Your task to perform on an android device: open chrome and create a bookmark for the current page Image 0: 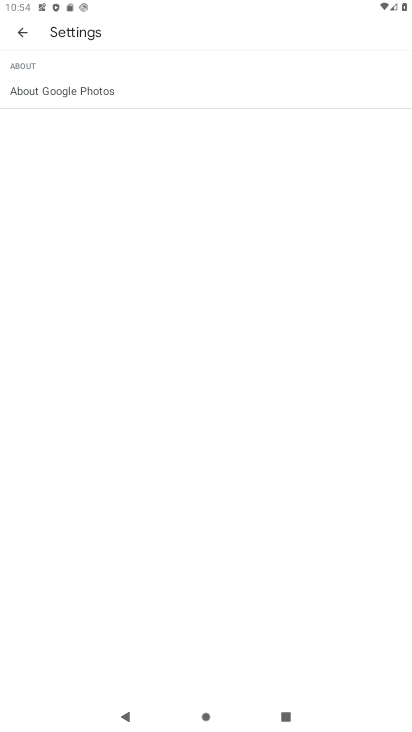
Step 0: press home button
Your task to perform on an android device: open chrome and create a bookmark for the current page Image 1: 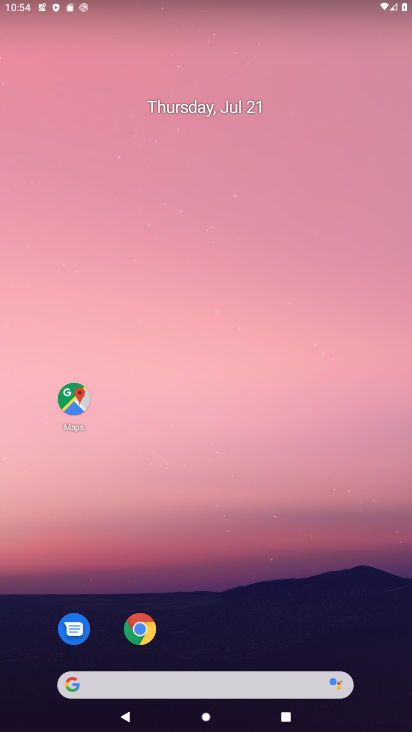
Step 1: click (140, 627)
Your task to perform on an android device: open chrome and create a bookmark for the current page Image 2: 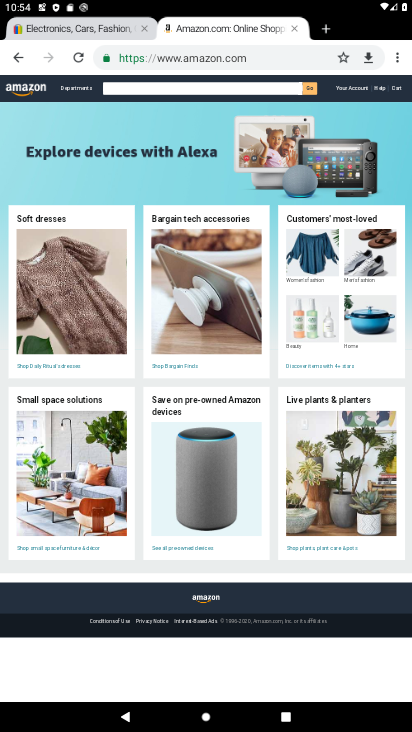
Step 2: click (402, 63)
Your task to perform on an android device: open chrome and create a bookmark for the current page Image 3: 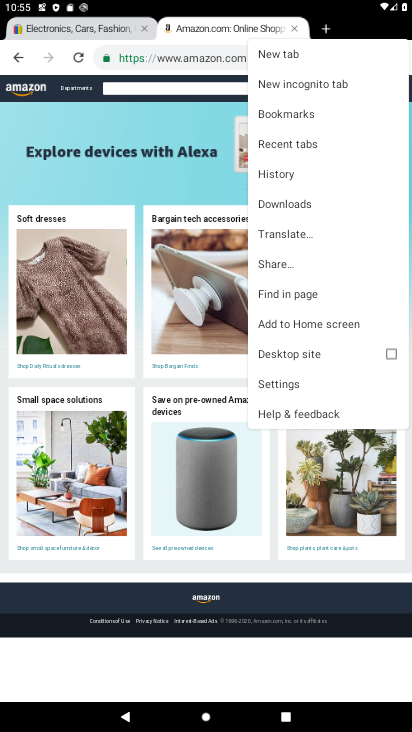
Step 3: click (315, 115)
Your task to perform on an android device: open chrome and create a bookmark for the current page Image 4: 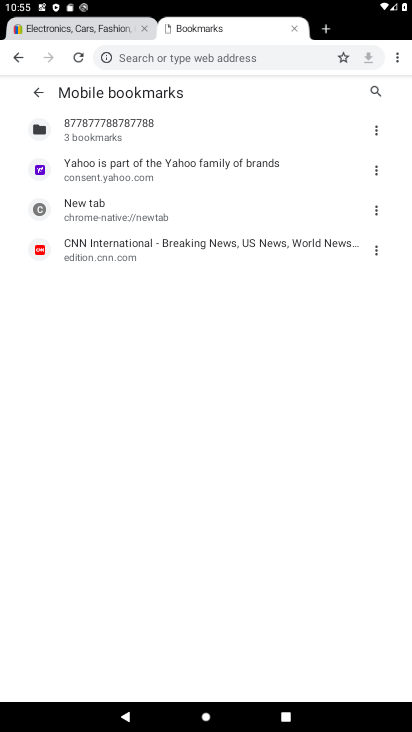
Step 4: click (344, 56)
Your task to perform on an android device: open chrome and create a bookmark for the current page Image 5: 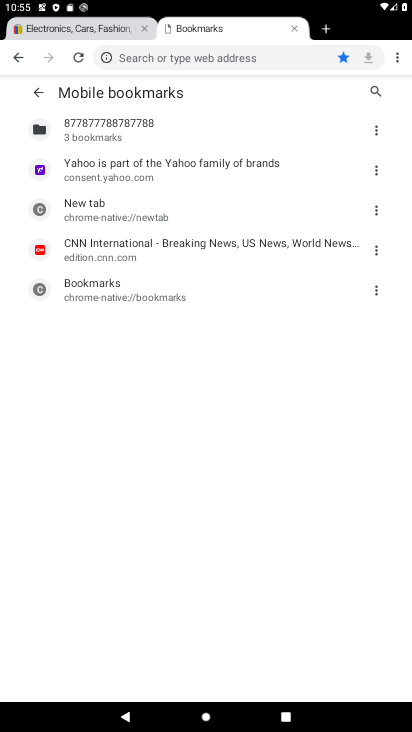
Step 5: task complete